Your task to perform on an android device: remove spam from my inbox in the gmail app Image 0: 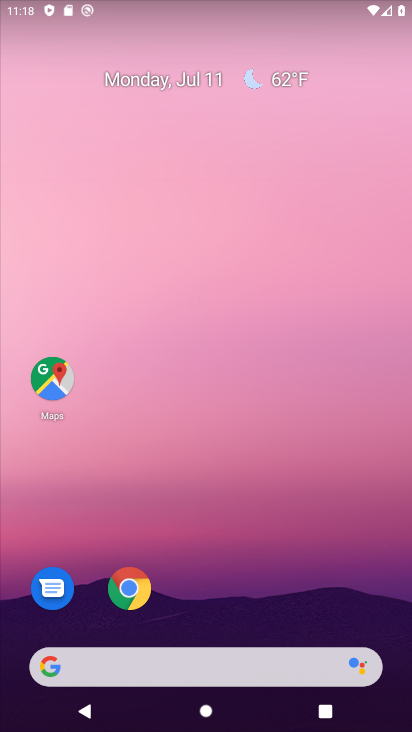
Step 0: drag from (223, 485) to (291, 129)
Your task to perform on an android device: remove spam from my inbox in the gmail app Image 1: 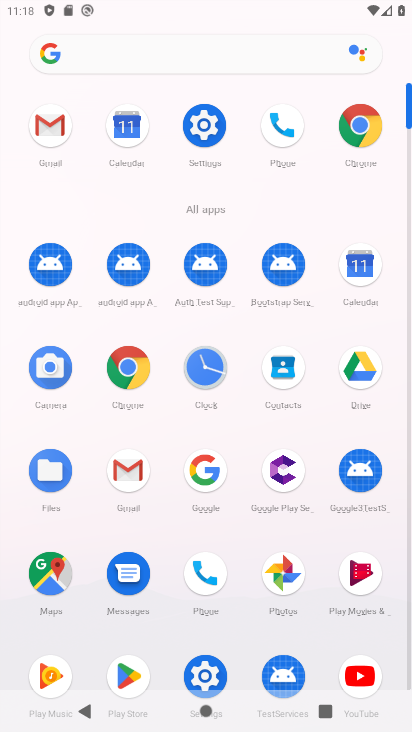
Step 1: click (51, 123)
Your task to perform on an android device: remove spam from my inbox in the gmail app Image 2: 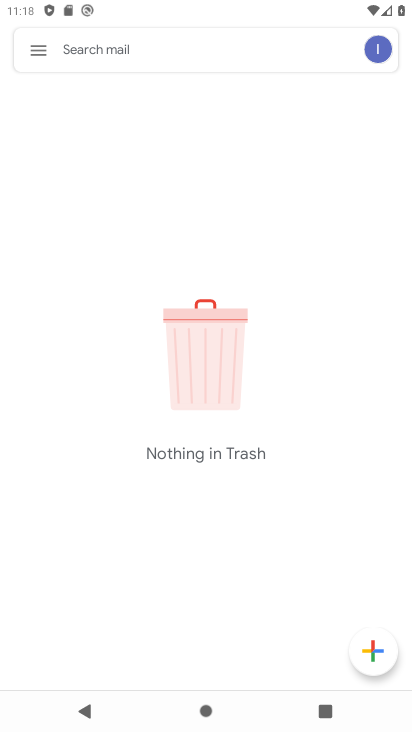
Step 2: click (42, 48)
Your task to perform on an android device: remove spam from my inbox in the gmail app Image 3: 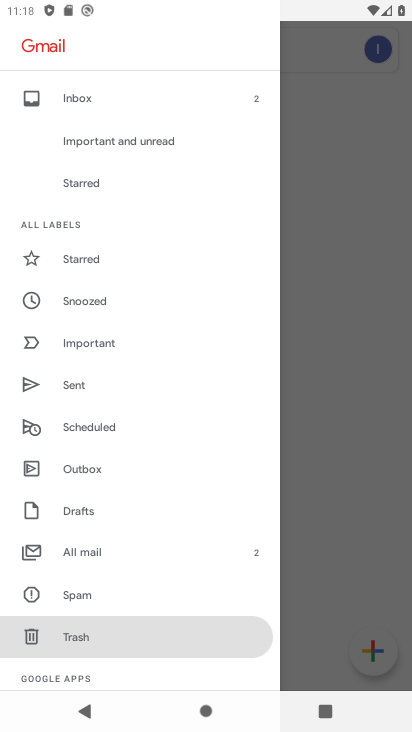
Step 3: click (85, 591)
Your task to perform on an android device: remove spam from my inbox in the gmail app Image 4: 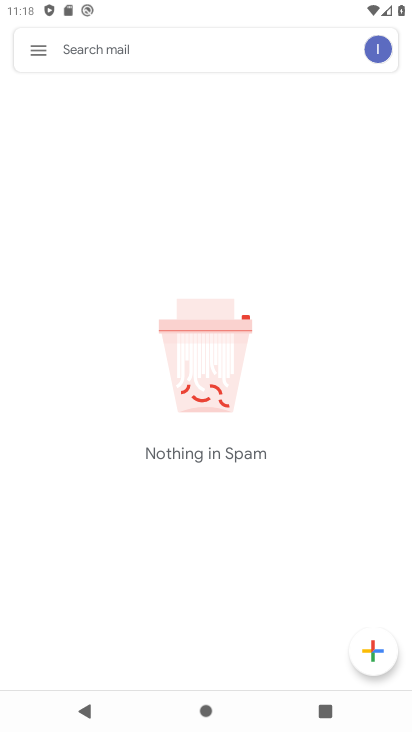
Step 4: task complete